Your task to perform on an android device: check the backup settings in the google photos Image 0: 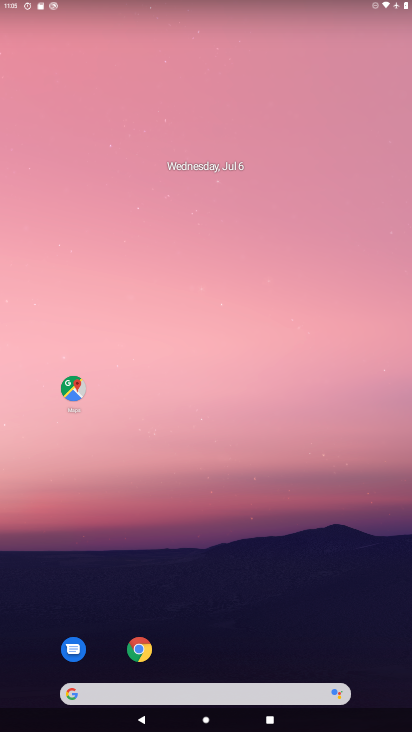
Step 0: drag from (385, 710) to (217, 88)
Your task to perform on an android device: check the backup settings in the google photos Image 1: 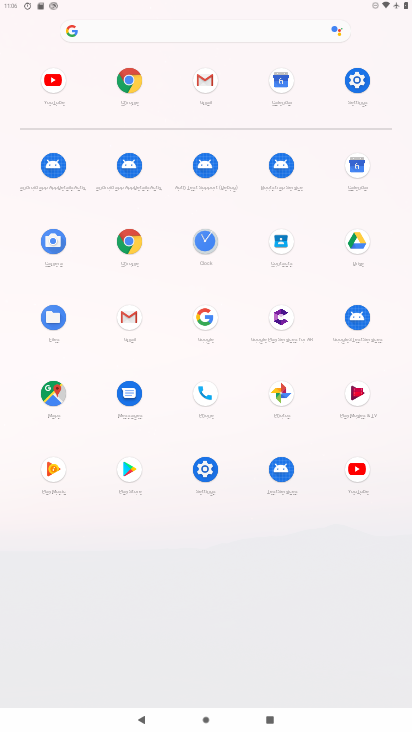
Step 1: click (285, 387)
Your task to perform on an android device: check the backup settings in the google photos Image 2: 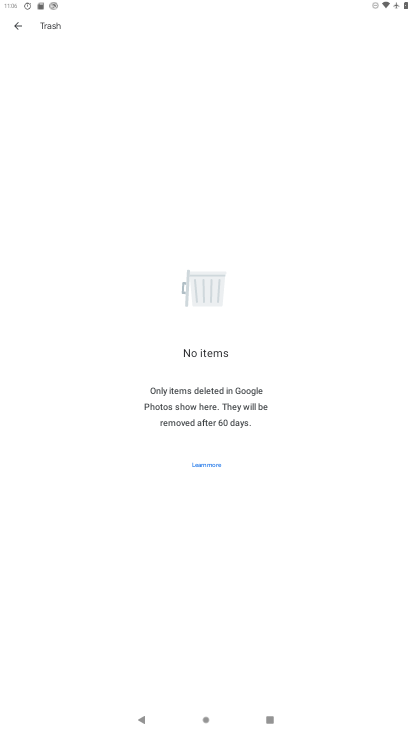
Step 2: click (11, 25)
Your task to perform on an android device: check the backup settings in the google photos Image 3: 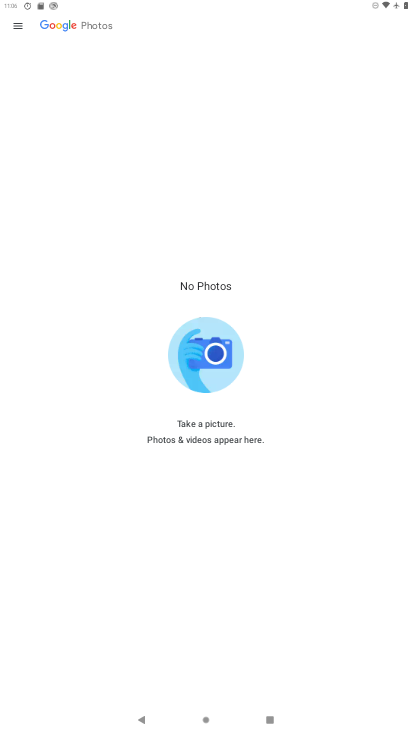
Step 3: click (15, 25)
Your task to perform on an android device: check the backup settings in the google photos Image 4: 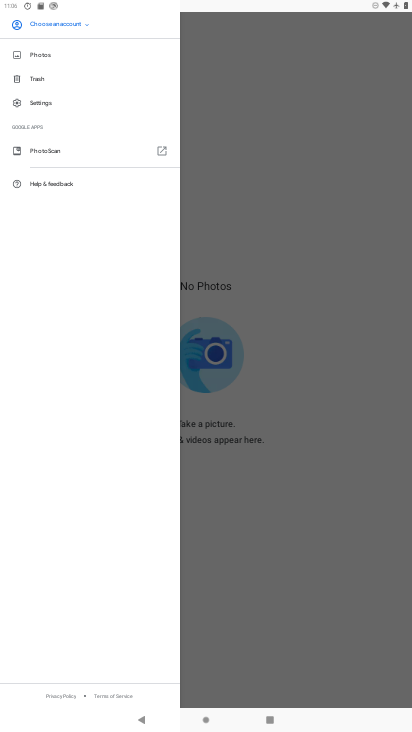
Step 4: click (35, 99)
Your task to perform on an android device: check the backup settings in the google photos Image 5: 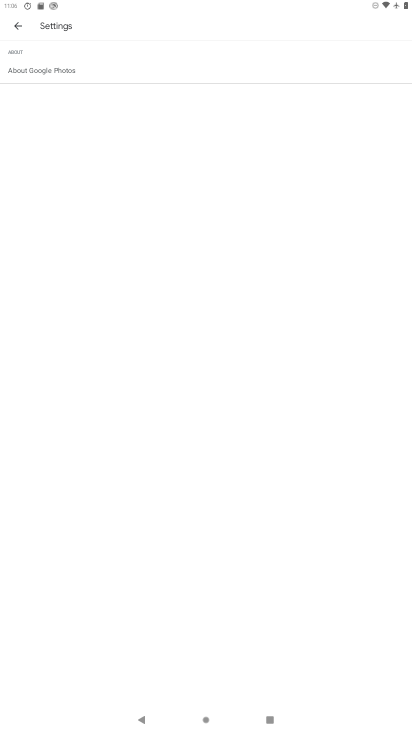
Step 5: click (18, 21)
Your task to perform on an android device: check the backup settings in the google photos Image 6: 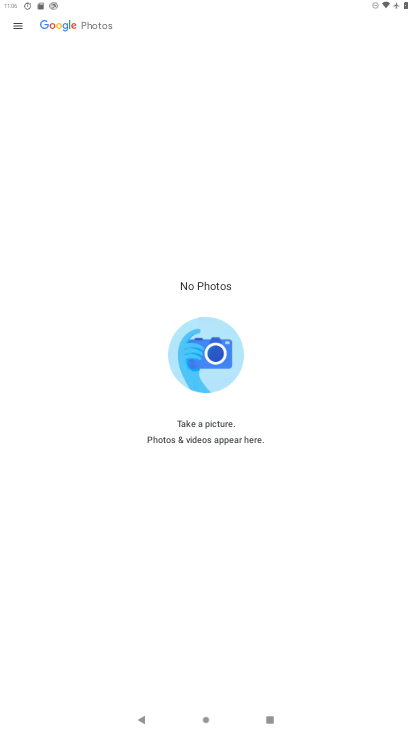
Step 6: task complete